Your task to perform on an android device: delete location history Image 0: 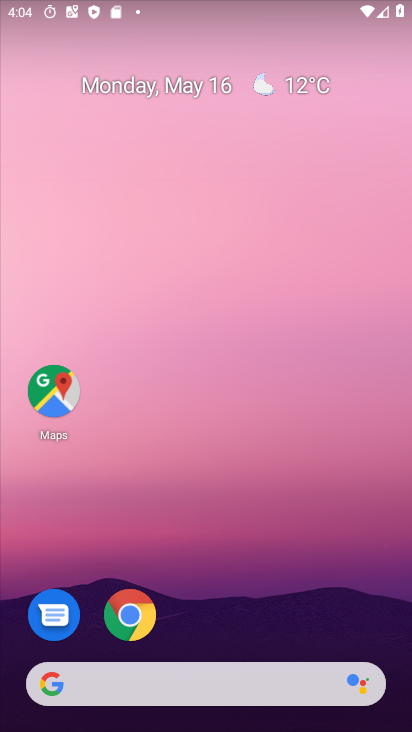
Step 0: drag from (370, 657) to (176, 107)
Your task to perform on an android device: delete location history Image 1: 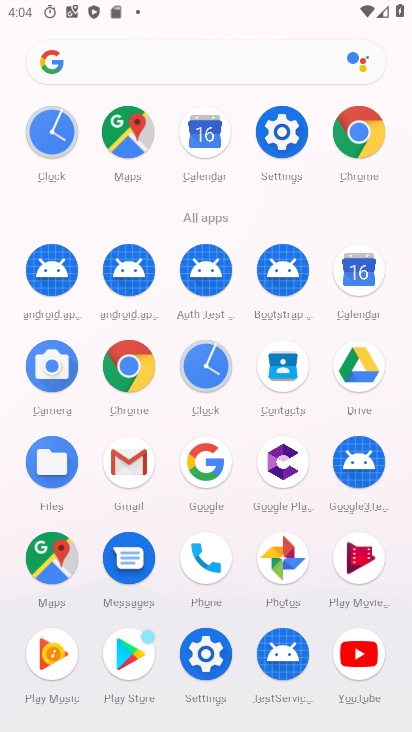
Step 1: click (55, 547)
Your task to perform on an android device: delete location history Image 2: 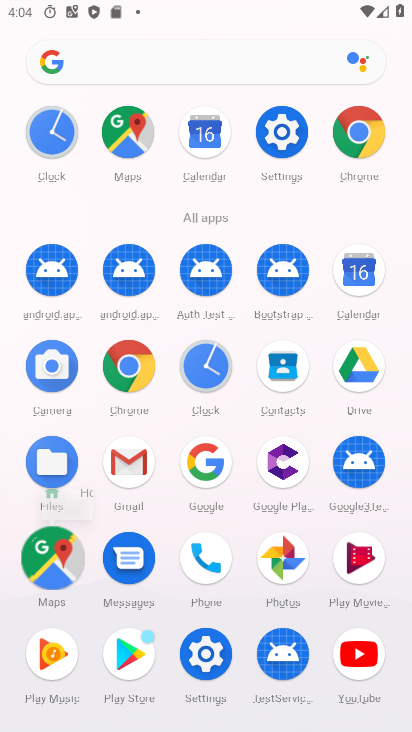
Step 2: click (55, 547)
Your task to perform on an android device: delete location history Image 3: 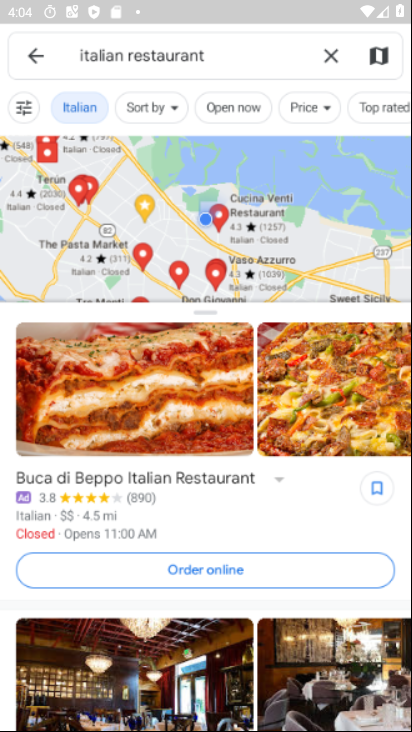
Step 3: click (55, 547)
Your task to perform on an android device: delete location history Image 4: 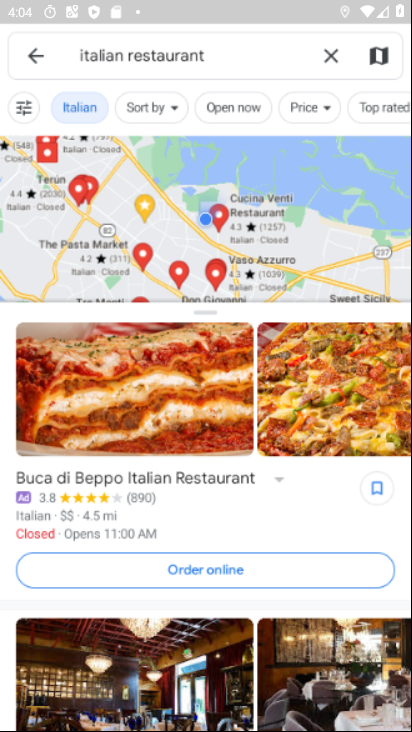
Step 4: click (28, 52)
Your task to perform on an android device: delete location history Image 5: 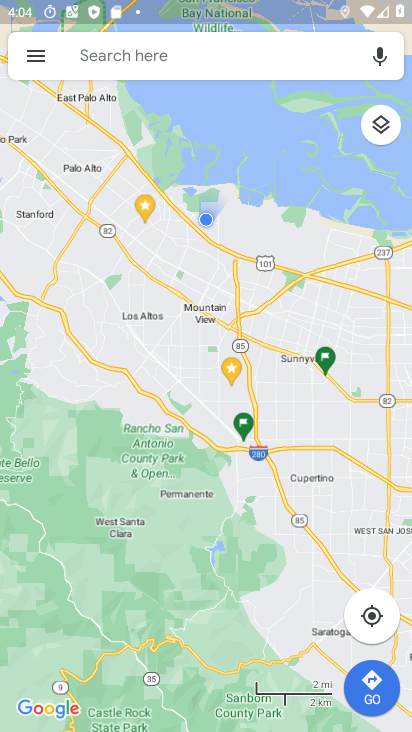
Step 5: click (73, 53)
Your task to perform on an android device: delete location history Image 6: 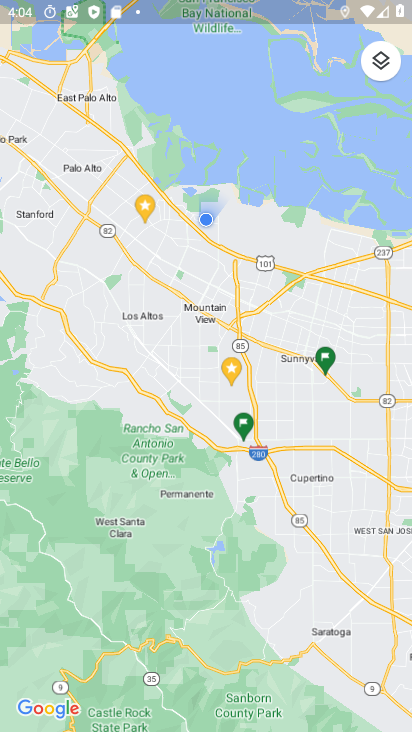
Step 6: drag from (212, 473) to (227, 174)
Your task to perform on an android device: delete location history Image 7: 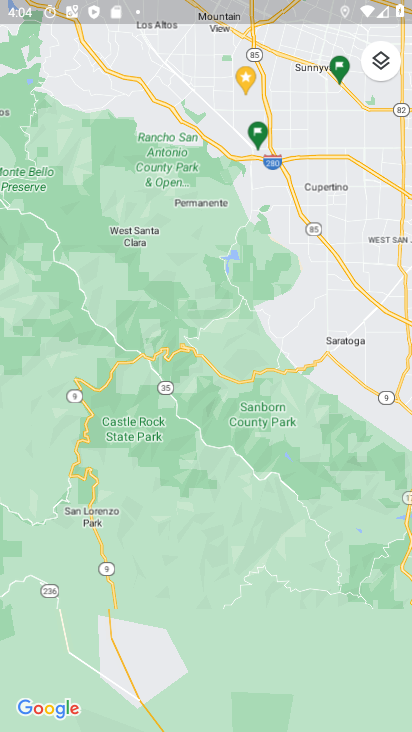
Step 7: drag from (235, 293) to (320, 589)
Your task to perform on an android device: delete location history Image 8: 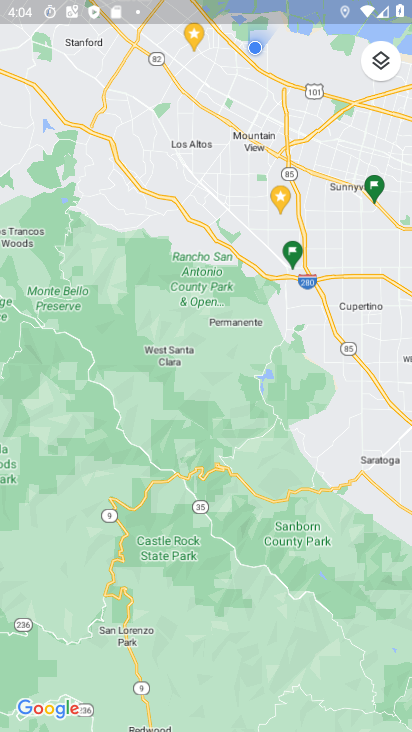
Step 8: drag from (169, 251) to (220, 527)
Your task to perform on an android device: delete location history Image 9: 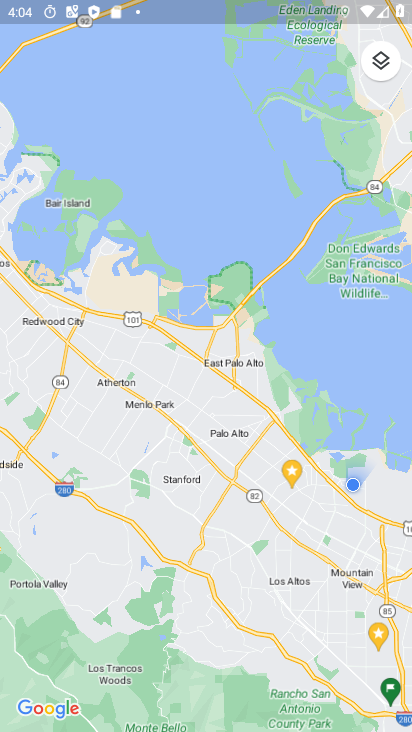
Step 9: drag from (123, 230) to (211, 523)
Your task to perform on an android device: delete location history Image 10: 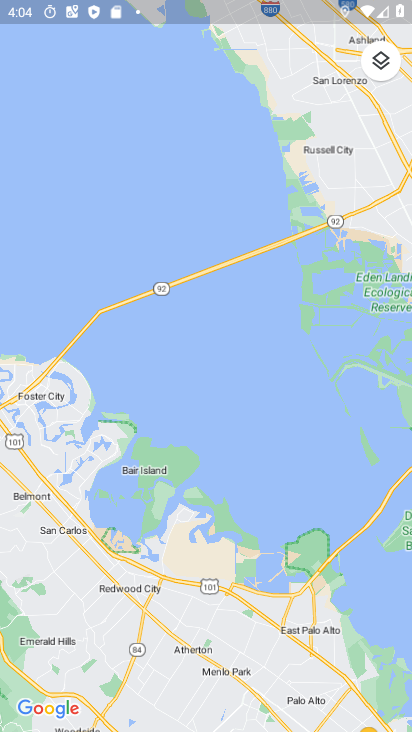
Step 10: drag from (194, 278) to (250, 500)
Your task to perform on an android device: delete location history Image 11: 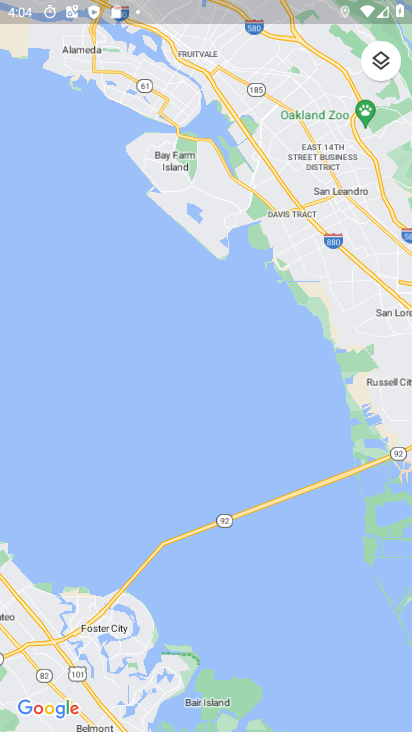
Step 11: click (272, 528)
Your task to perform on an android device: delete location history Image 12: 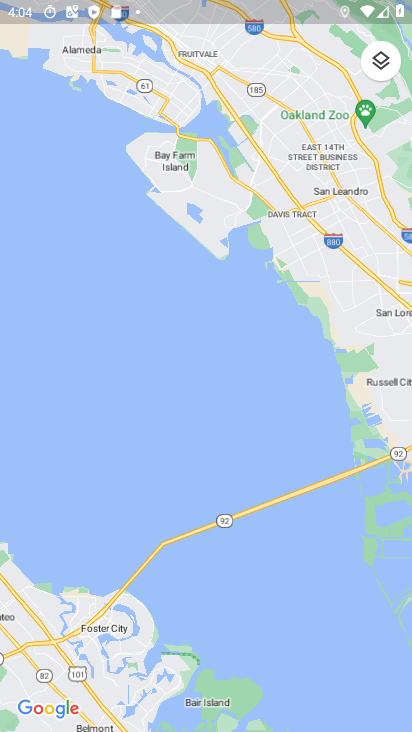
Step 12: drag from (193, 309) to (231, 450)
Your task to perform on an android device: delete location history Image 13: 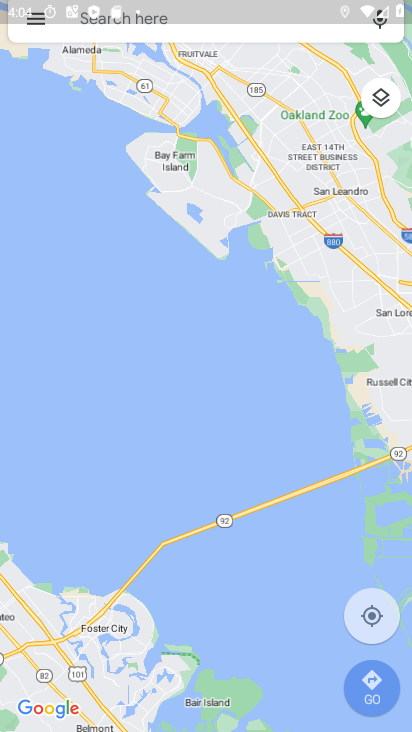
Step 13: drag from (278, 181) to (336, 415)
Your task to perform on an android device: delete location history Image 14: 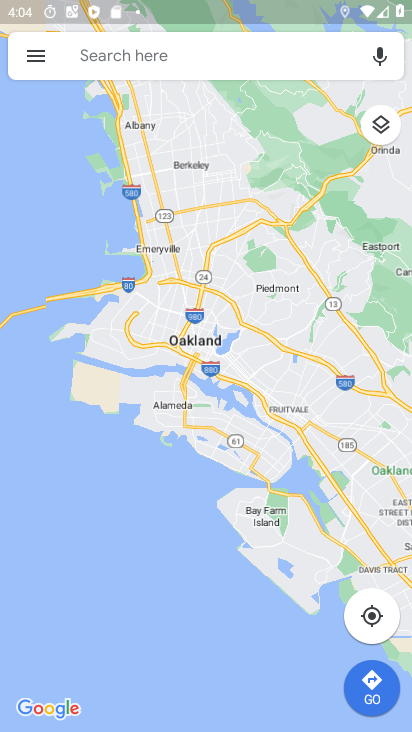
Step 14: drag from (249, 186) to (246, 485)
Your task to perform on an android device: delete location history Image 15: 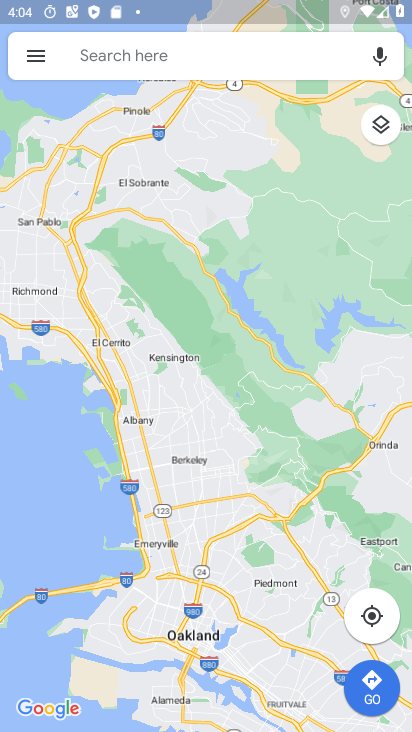
Step 15: drag from (96, 55) to (111, 118)
Your task to perform on an android device: delete location history Image 16: 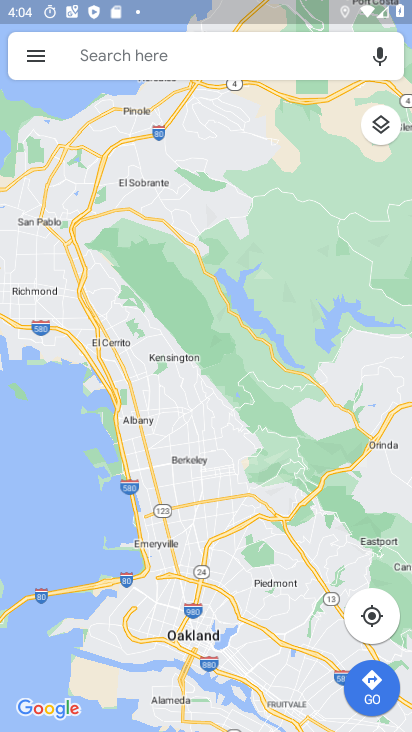
Step 16: click (96, 46)
Your task to perform on an android device: delete location history Image 17: 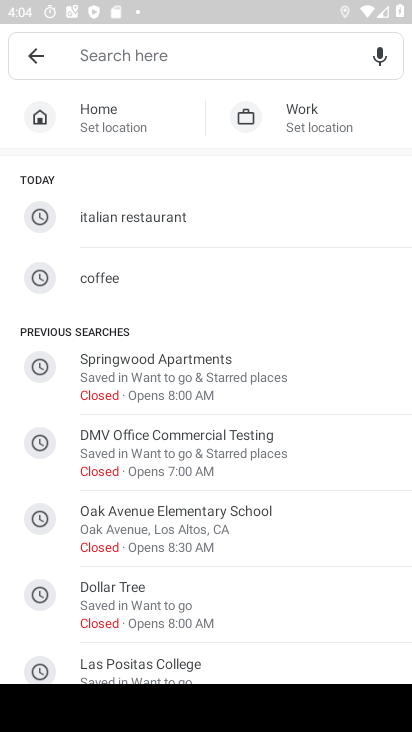
Step 17: click (36, 53)
Your task to perform on an android device: delete location history Image 18: 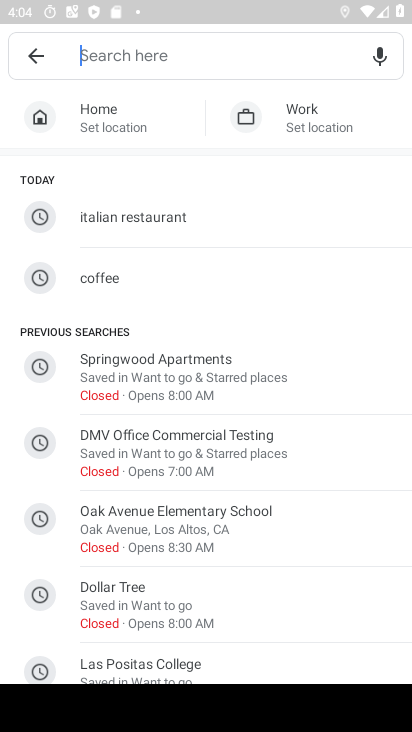
Step 18: click (36, 53)
Your task to perform on an android device: delete location history Image 19: 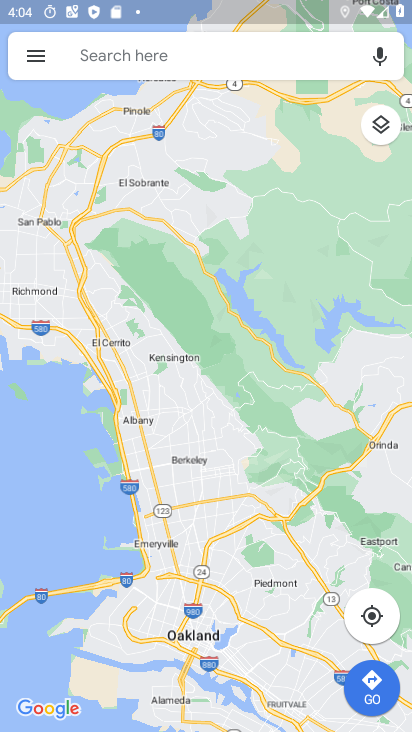
Step 19: click (33, 53)
Your task to perform on an android device: delete location history Image 20: 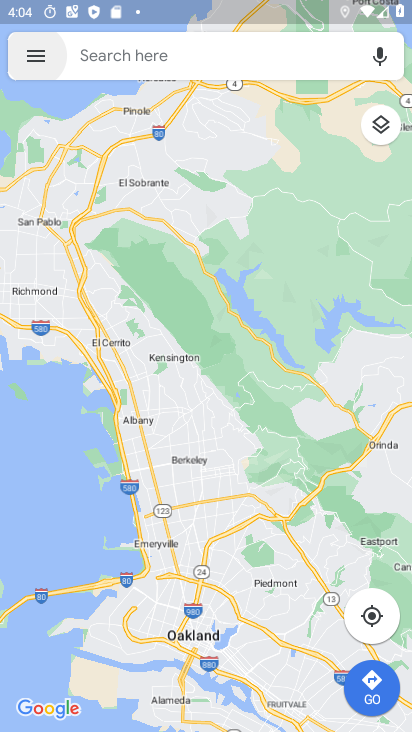
Step 20: click (33, 53)
Your task to perform on an android device: delete location history Image 21: 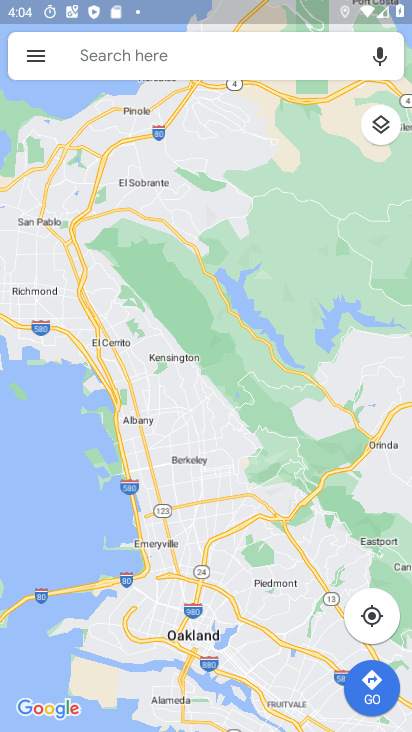
Step 21: click (34, 52)
Your task to perform on an android device: delete location history Image 22: 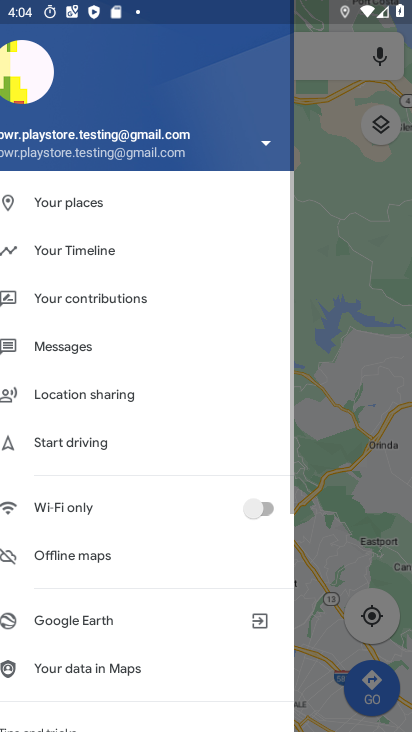
Step 22: click (34, 52)
Your task to perform on an android device: delete location history Image 23: 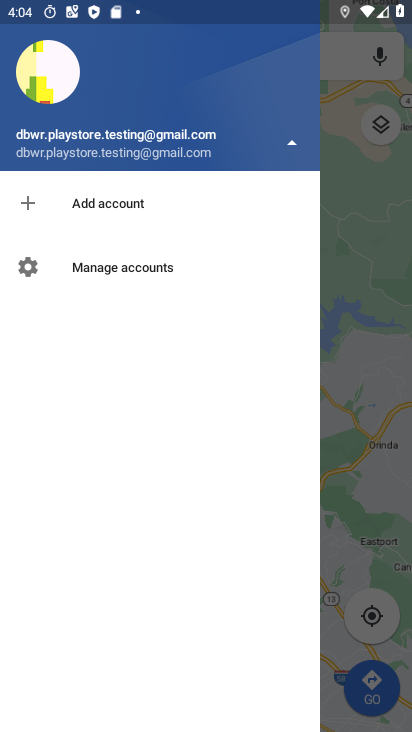
Step 23: click (294, 144)
Your task to perform on an android device: delete location history Image 24: 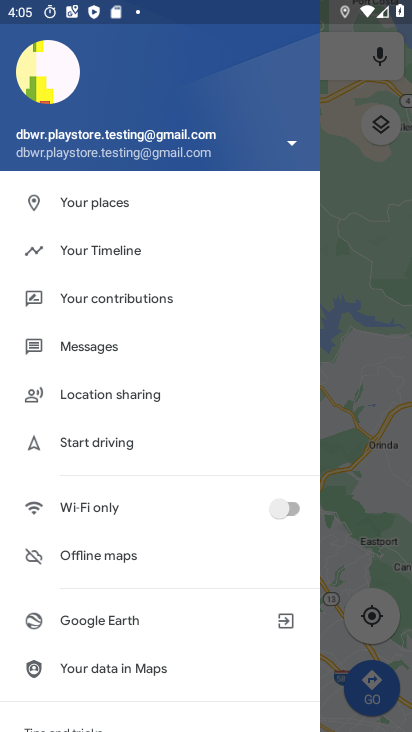
Step 24: click (80, 243)
Your task to perform on an android device: delete location history Image 25: 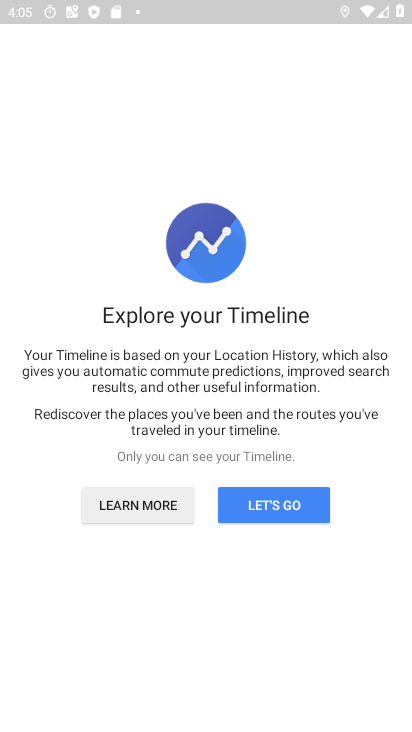
Step 25: click (287, 506)
Your task to perform on an android device: delete location history Image 26: 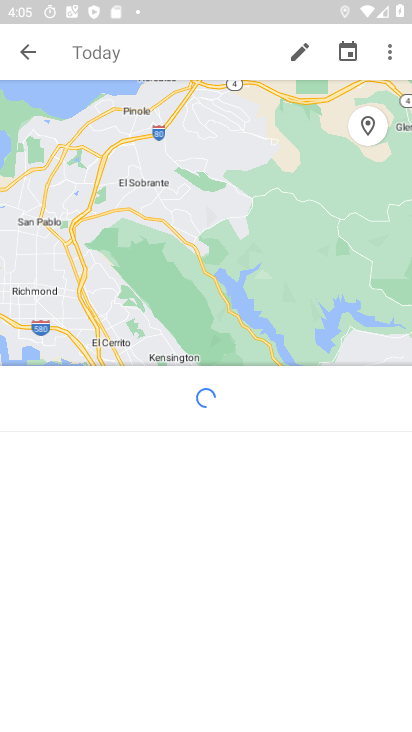
Step 26: click (275, 508)
Your task to perform on an android device: delete location history Image 27: 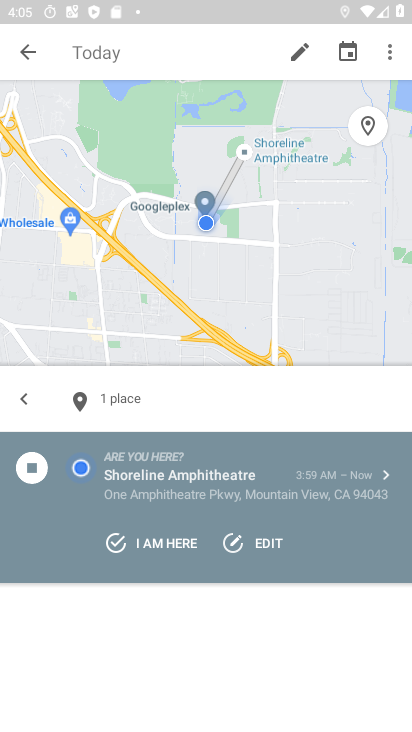
Step 27: click (388, 52)
Your task to perform on an android device: delete location history Image 28: 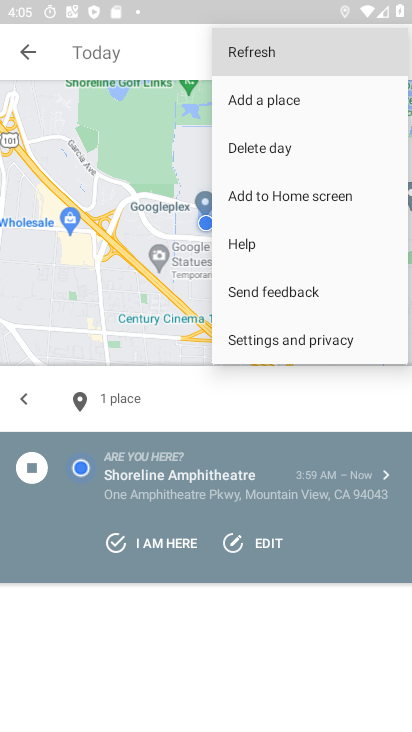
Step 28: click (389, 53)
Your task to perform on an android device: delete location history Image 29: 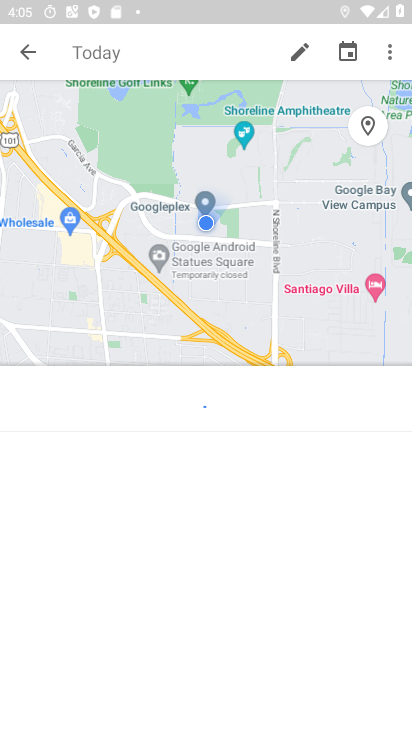
Step 29: click (273, 341)
Your task to perform on an android device: delete location history Image 30: 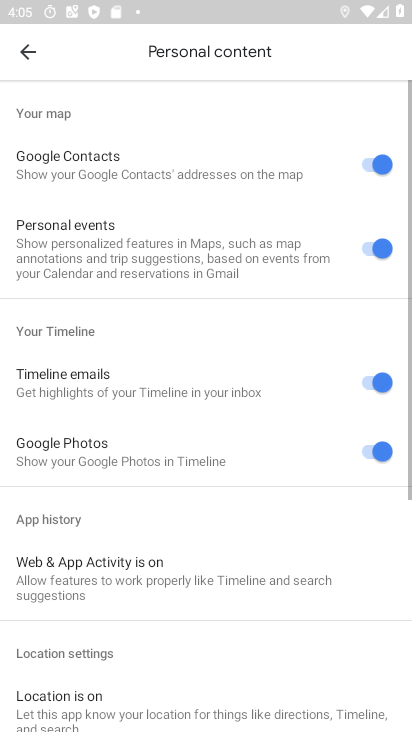
Step 30: click (290, 338)
Your task to perform on an android device: delete location history Image 31: 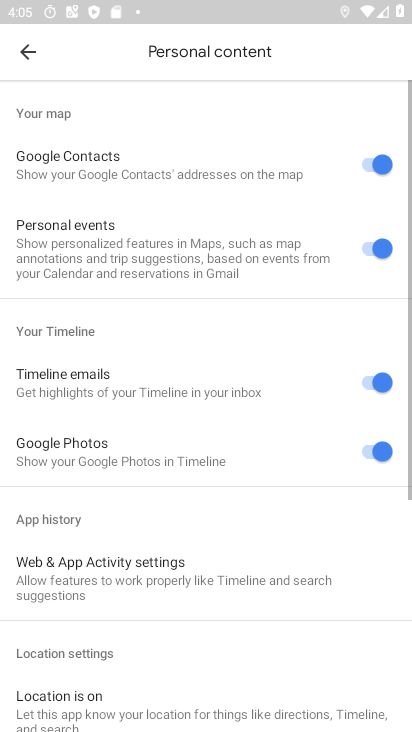
Step 31: drag from (180, 603) to (180, 106)
Your task to perform on an android device: delete location history Image 32: 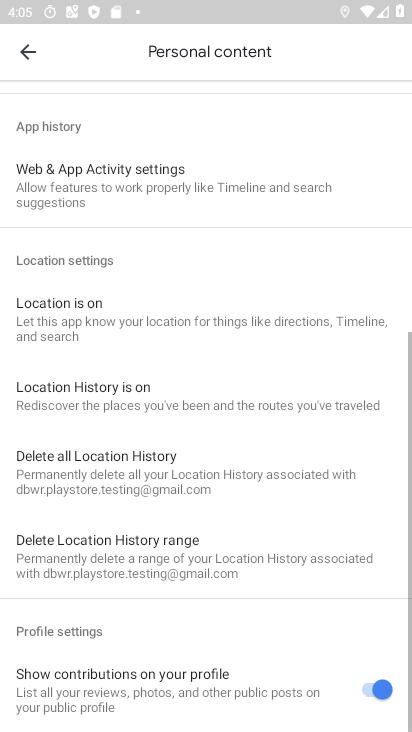
Step 32: drag from (236, 414) to (240, 54)
Your task to perform on an android device: delete location history Image 33: 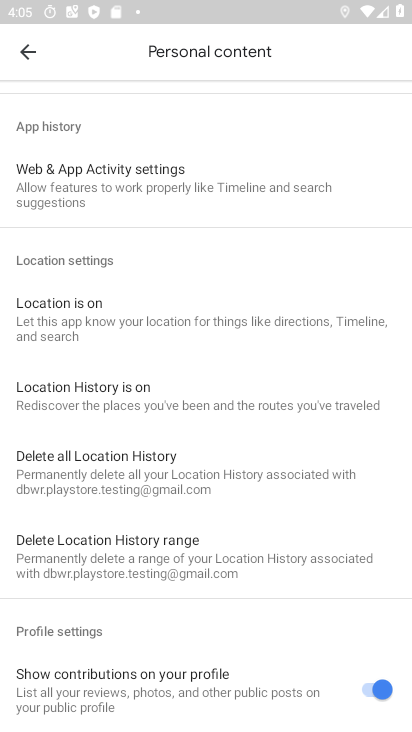
Step 33: click (82, 465)
Your task to perform on an android device: delete location history Image 34: 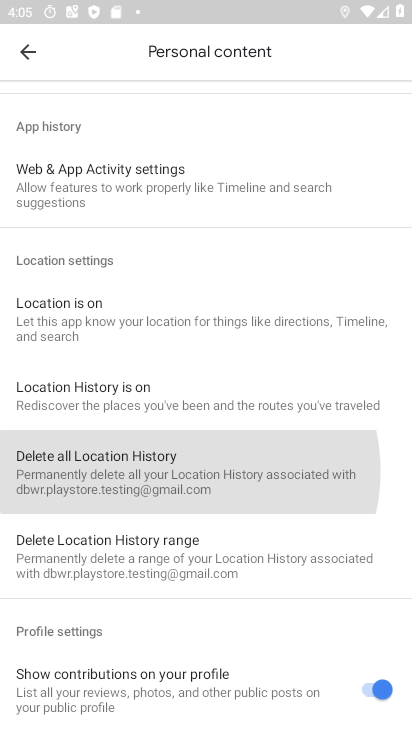
Step 34: click (82, 465)
Your task to perform on an android device: delete location history Image 35: 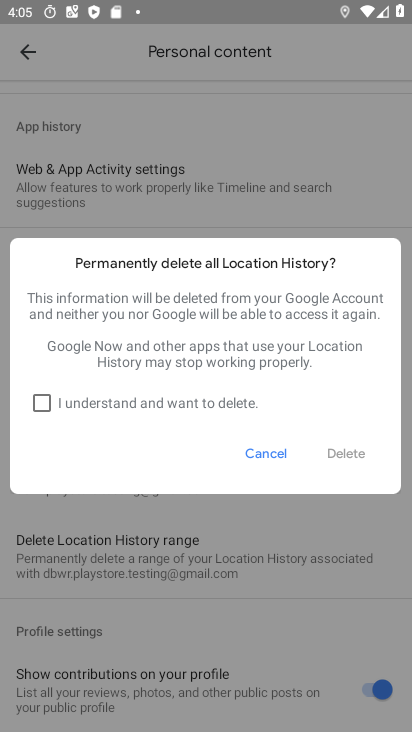
Step 35: click (83, 464)
Your task to perform on an android device: delete location history Image 36: 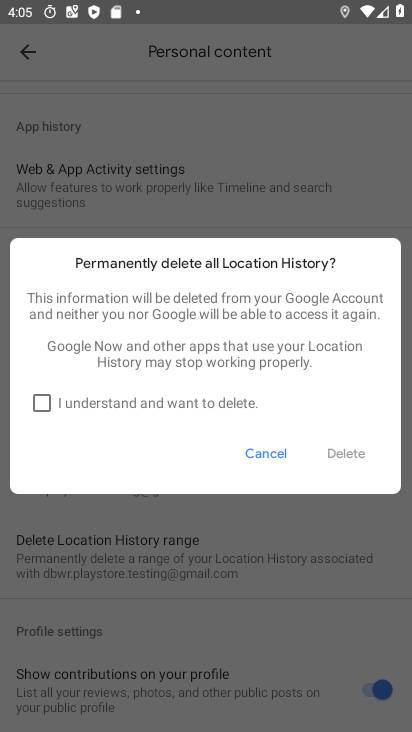
Step 36: click (45, 401)
Your task to perform on an android device: delete location history Image 37: 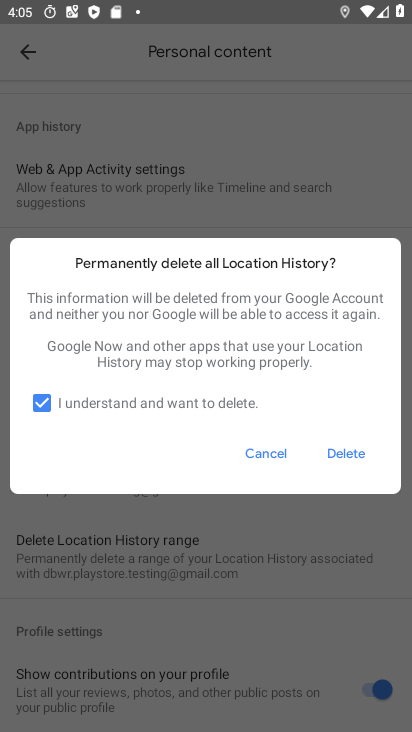
Step 37: click (349, 449)
Your task to perform on an android device: delete location history Image 38: 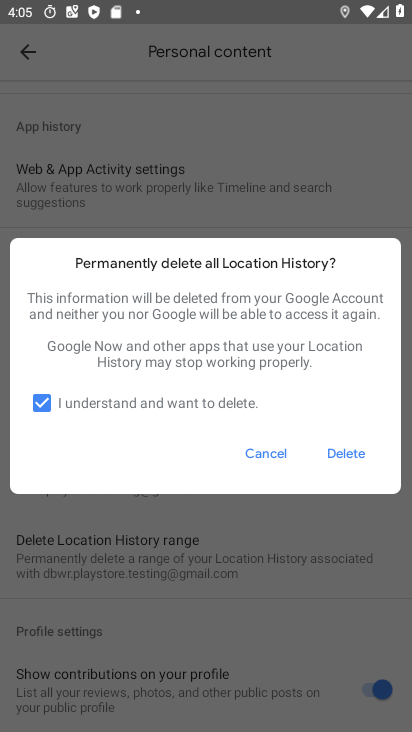
Step 38: click (349, 449)
Your task to perform on an android device: delete location history Image 39: 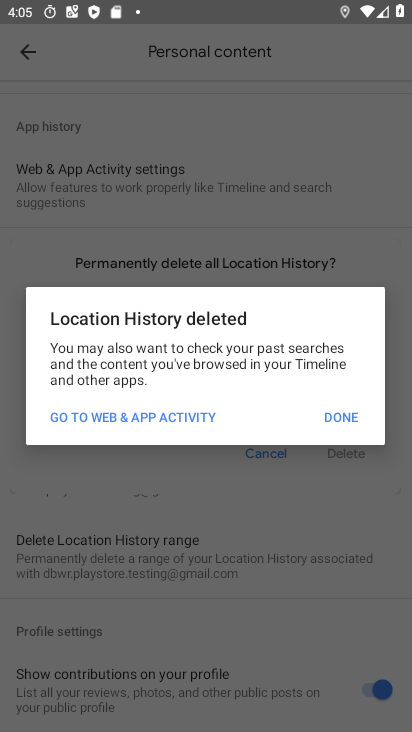
Step 39: click (332, 414)
Your task to perform on an android device: delete location history Image 40: 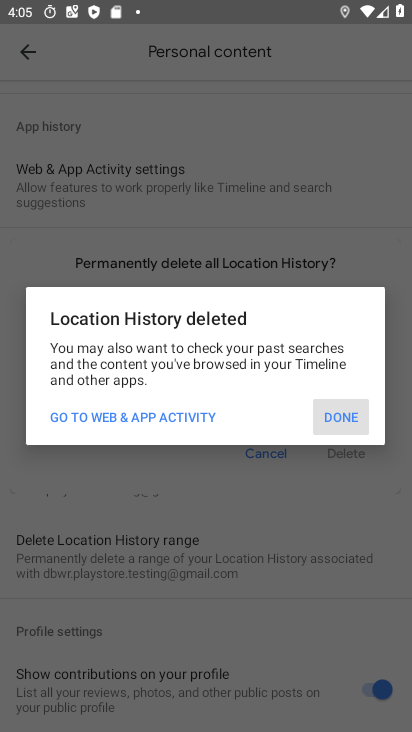
Step 40: click (340, 408)
Your task to perform on an android device: delete location history Image 41: 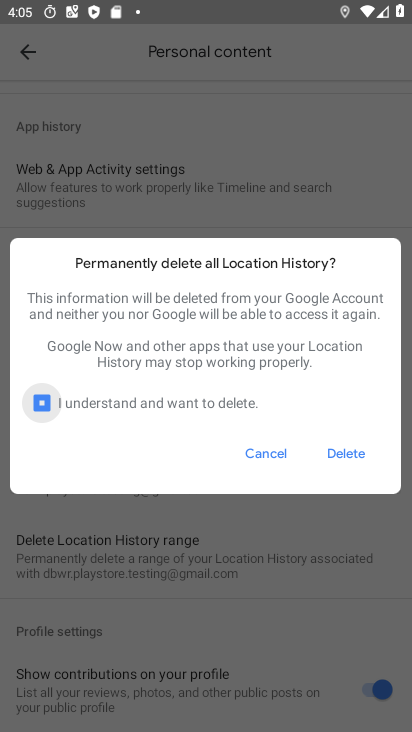
Step 41: click (340, 408)
Your task to perform on an android device: delete location history Image 42: 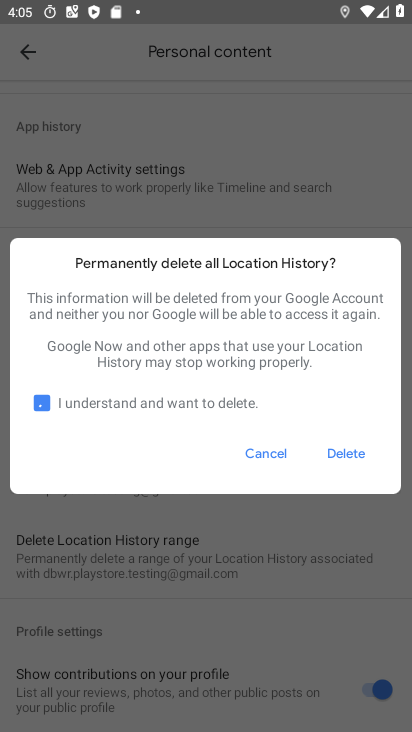
Step 42: click (340, 408)
Your task to perform on an android device: delete location history Image 43: 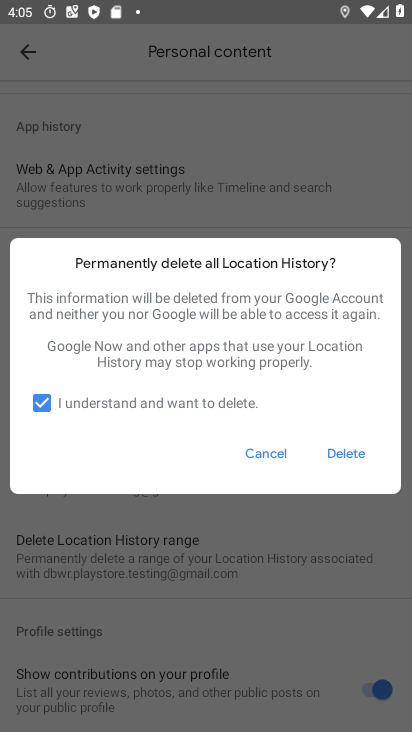
Step 43: click (339, 448)
Your task to perform on an android device: delete location history Image 44: 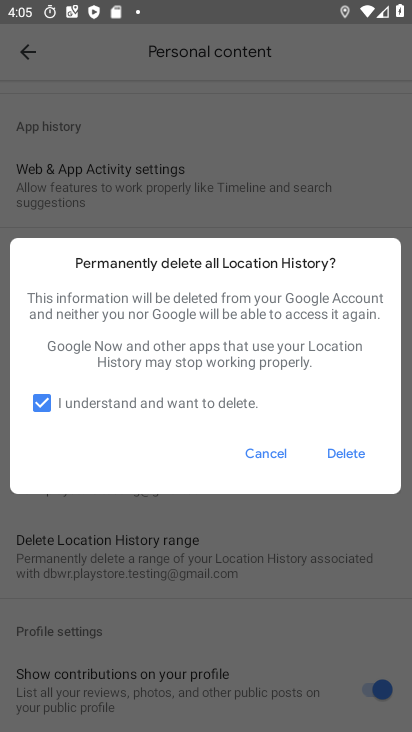
Step 44: click (339, 449)
Your task to perform on an android device: delete location history Image 45: 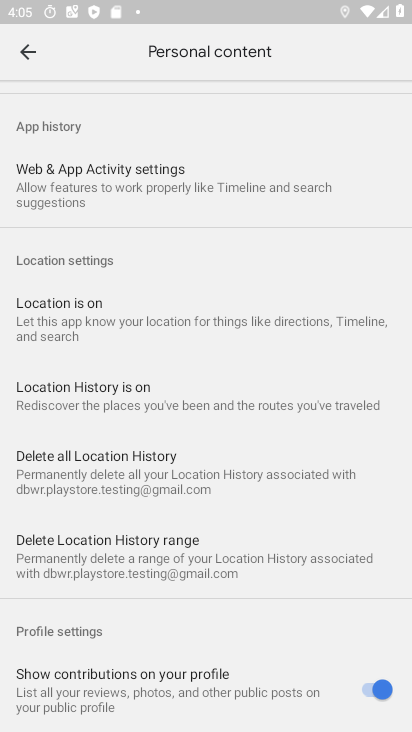
Step 45: click (340, 450)
Your task to perform on an android device: delete location history Image 46: 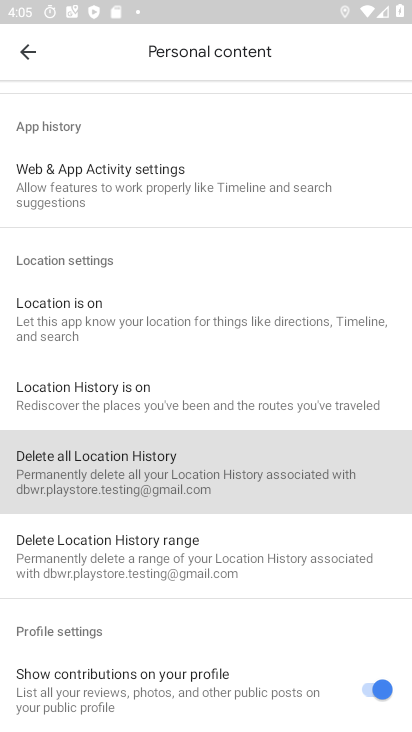
Step 46: click (339, 449)
Your task to perform on an android device: delete location history Image 47: 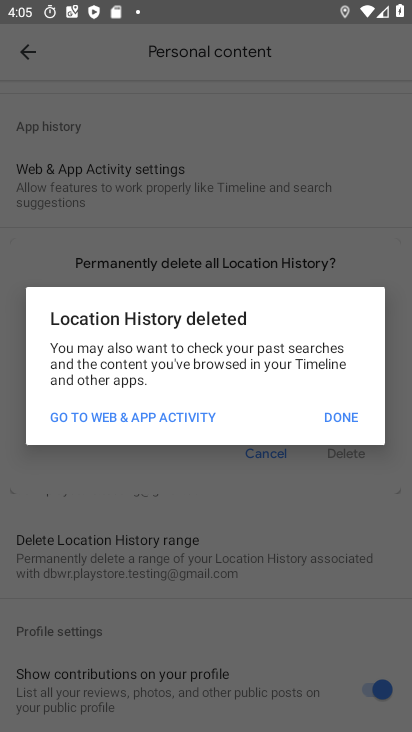
Step 47: task complete